Your task to perform on an android device: refresh tabs in the chrome app Image 0: 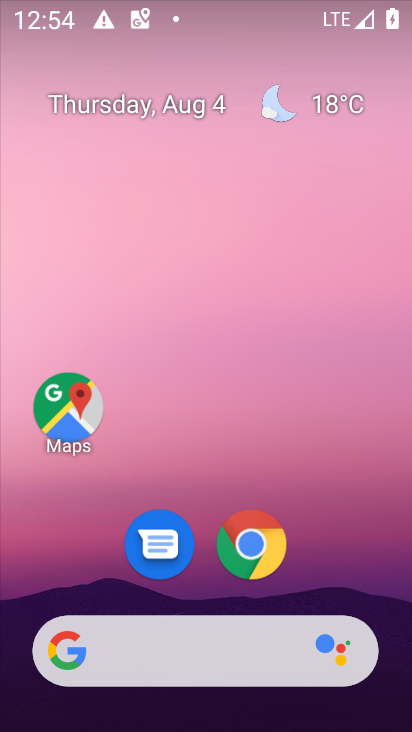
Step 0: click (246, 548)
Your task to perform on an android device: refresh tabs in the chrome app Image 1: 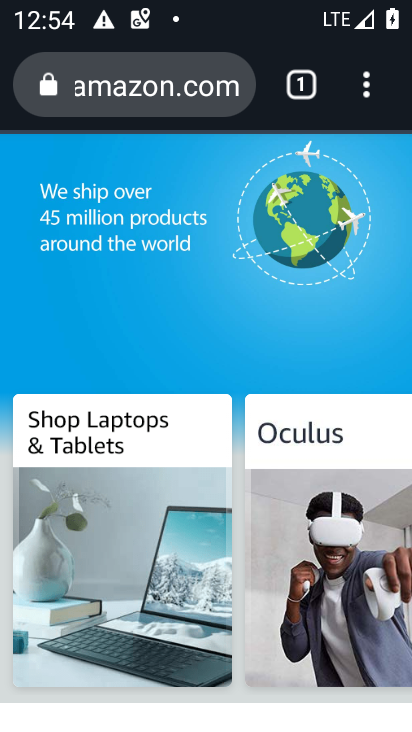
Step 1: click (369, 81)
Your task to perform on an android device: refresh tabs in the chrome app Image 2: 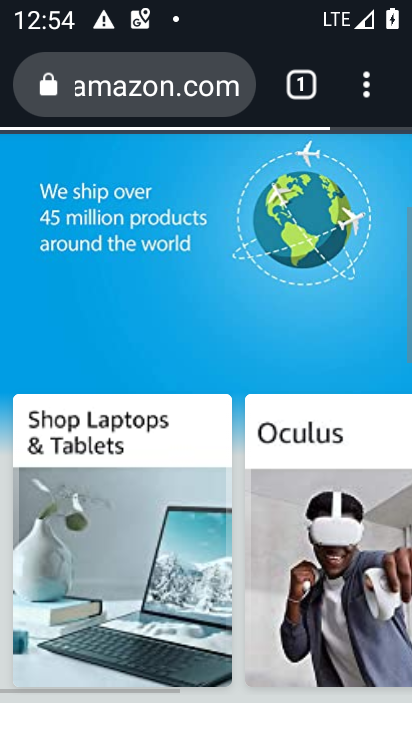
Step 2: click (369, 81)
Your task to perform on an android device: refresh tabs in the chrome app Image 3: 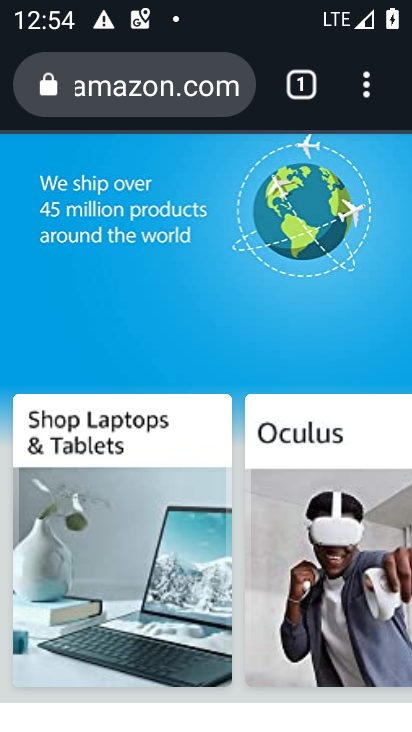
Step 3: click (367, 82)
Your task to perform on an android device: refresh tabs in the chrome app Image 4: 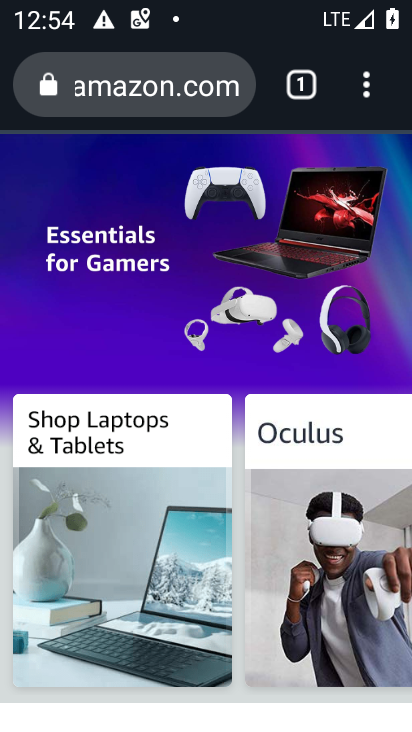
Step 4: click (367, 82)
Your task to perform on an android device: refresh tabs in the chrome app Image 5: 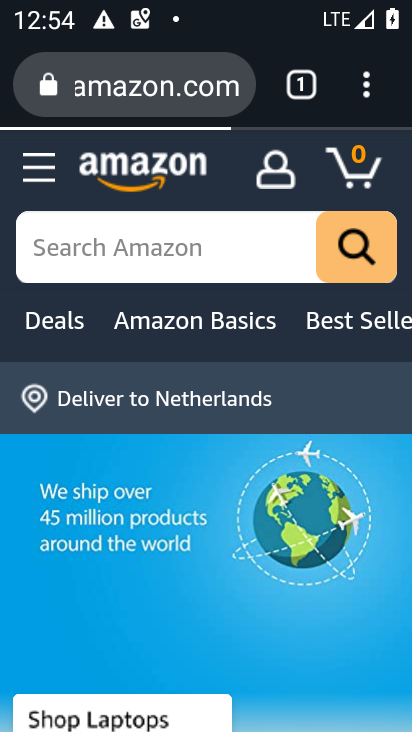
Step 5: click (367, 82)
Your task to perform on an android device: refresh tabs in the chrome app Image 6: 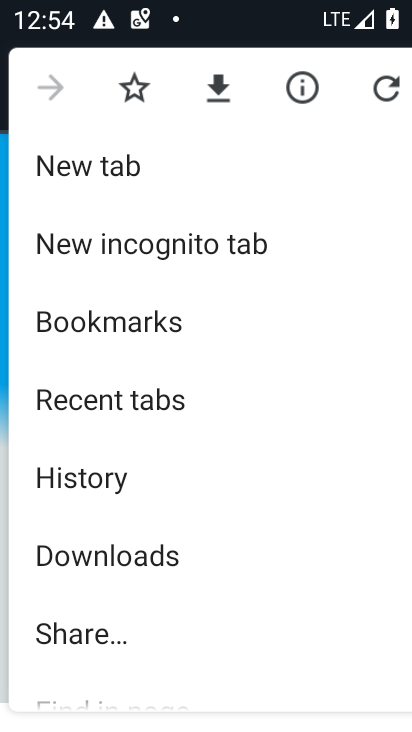
Step 6: drag from (307, 587) to (302, 322)
Your task to perform on an android device: refresh tabs in the chrome app Image 7: 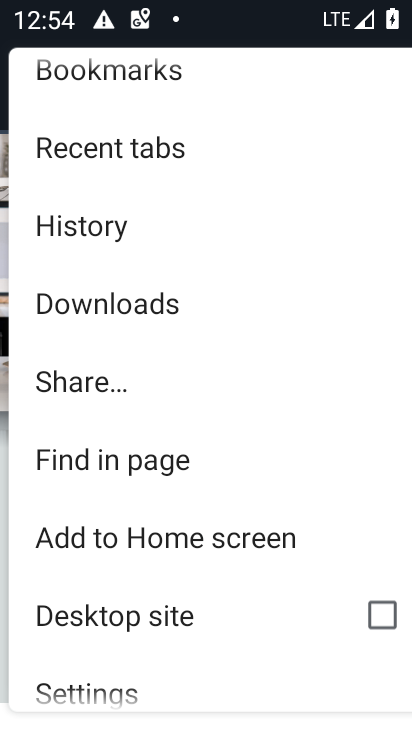
Step 7: drag from (272, 625) to (258, 294)
Your task to perform on an android device: refresh tabs in the chrome app Image 8: 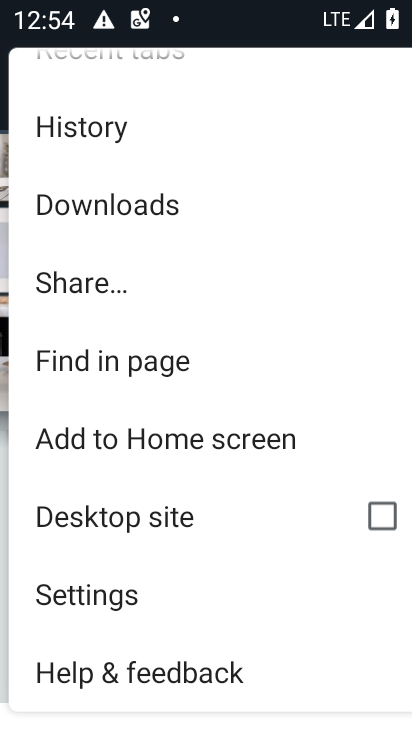
Step 8: drag from (270, 153) to (315, 695)
Your task to perform on an android device: refresh tabs in the chrome app Image 9: 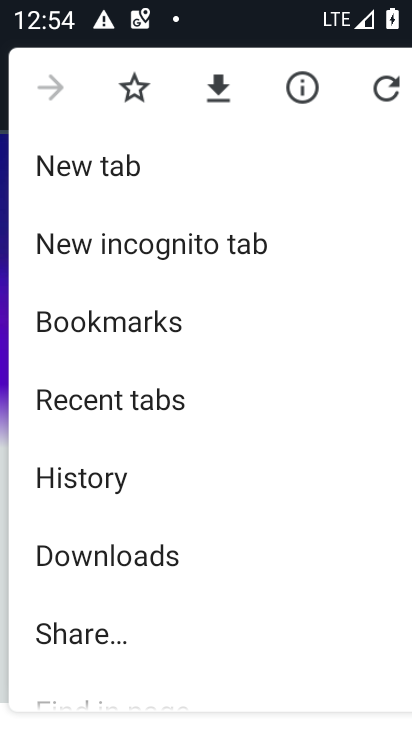
Step 9: click (391, 85)
Your task to perform on an android device: refresh tabs in the chrome app Image 10: 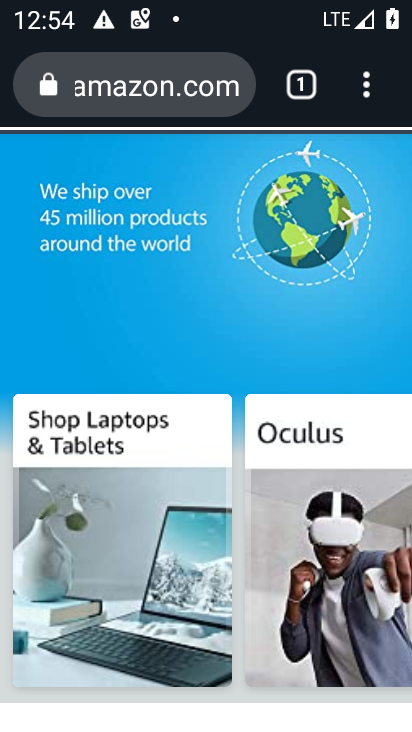
Step 10: task complete